Your task to perform on an android device: find which apps use the phone's location Image 0: 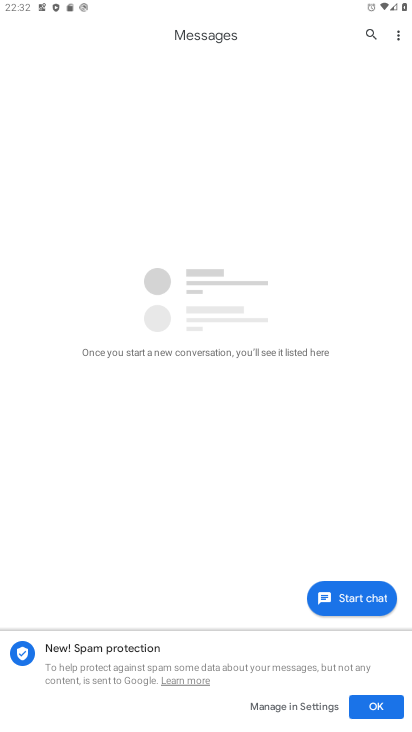
Step 0: press home button
Your task to perform on an android device: find which apps use the phone's location Image 1: 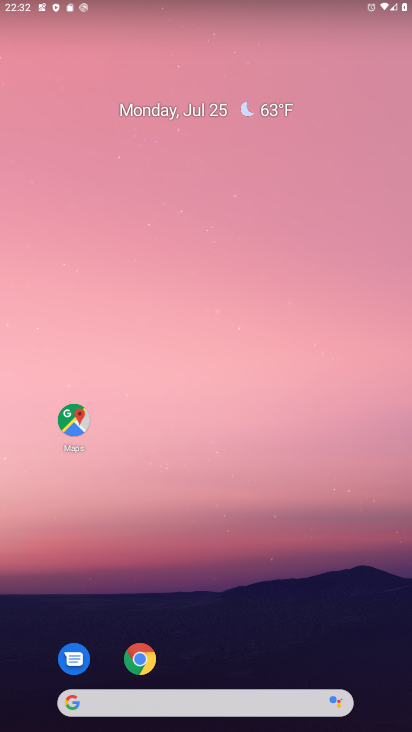
Step 1: drag from (204, 730) to (212, 225)
Your task to perform on an android device: find which apps use the phone's location Image 2: 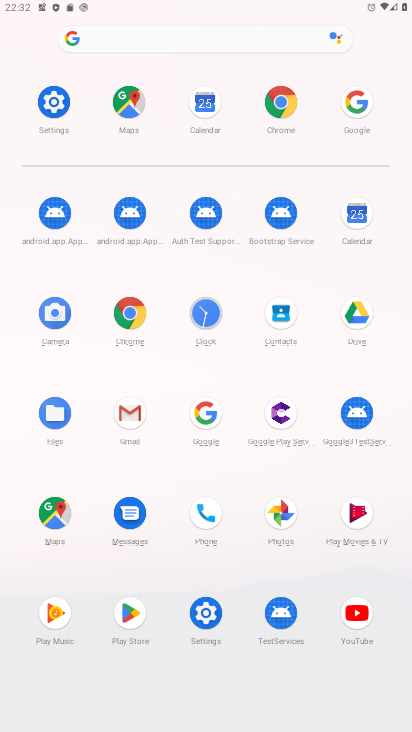
Step 2: click (55, 101)
Your task to perform on an android device: find which apps use the phone's location Image 3: 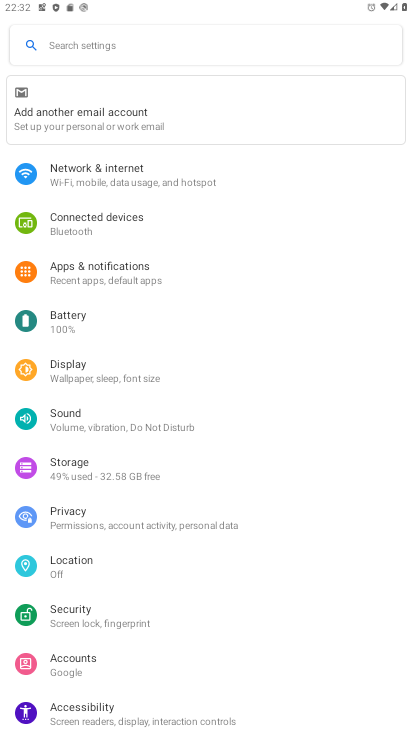
Step 3: click (75, 561)
Your task to perform on an android device: find which apps use the phone's location Image 4: 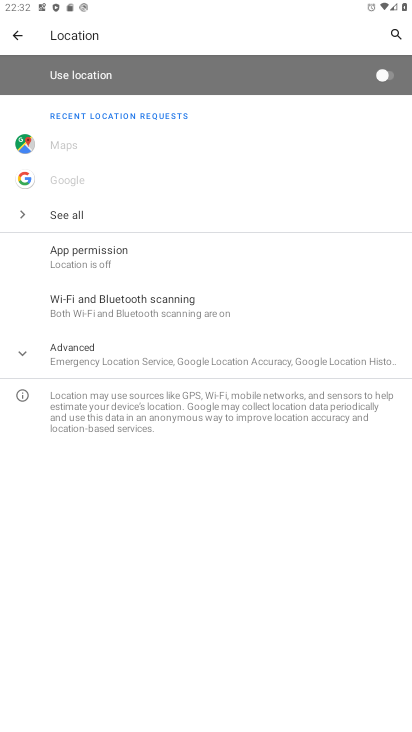
Step 4: click (72, 255)
Your task to perform on an android device: find which apps use the phone's location Image 5: 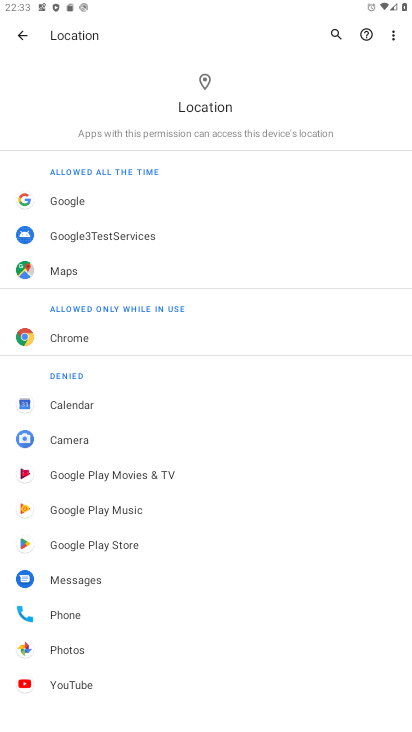
Step 5: task complete